Your task to perform on an android device: move an email to a new category in the gmail app Image 0: 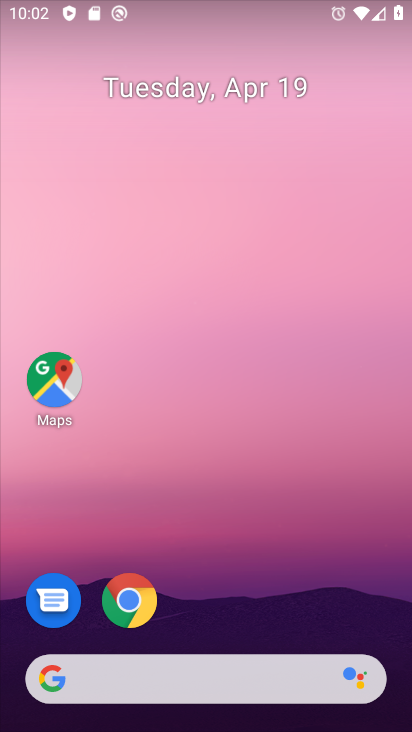
Step 0: drag from (224, 619) to (404, 476)
Your task to perform on an android device: move an email to a new category in the gmail app Image 1: 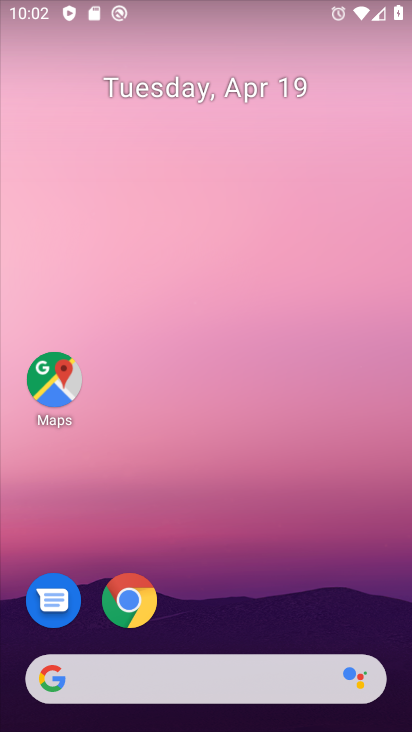
Step 1: drag from (219, 619) to (306, 17)
Your task to perform on an android device: move an email to a new category in the gmail app Image 2: 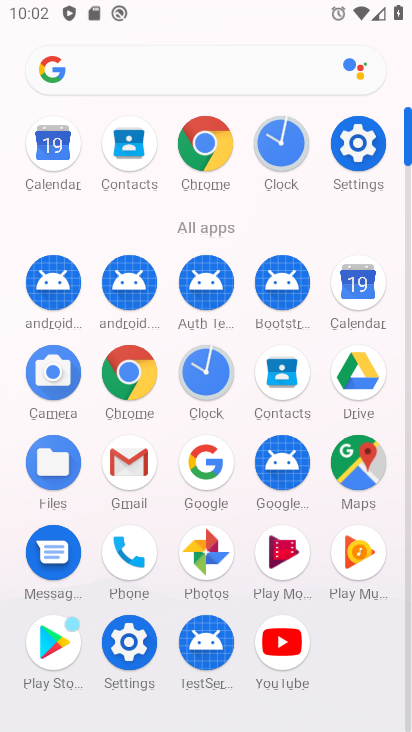
Step 2: click (123, 474)
Your task to perform on an android device: move an email to a new category in the gmail app Image 3: 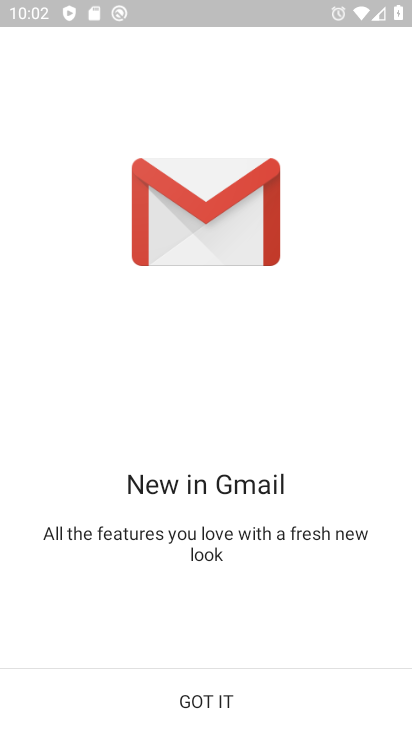
Step 3: click (234, 706)
Your task to perform on an android device: move an email to a new category in the gmail app Image 4: 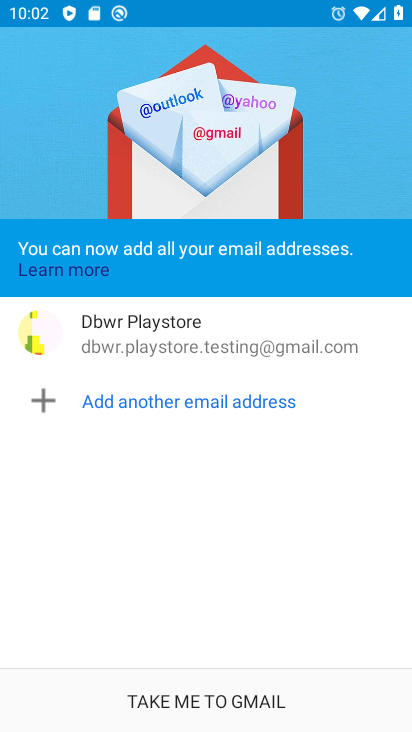
Step 4: click (233, 702)
Your task to perform on an android device: move an email to a new category in the gmail app Image 5: 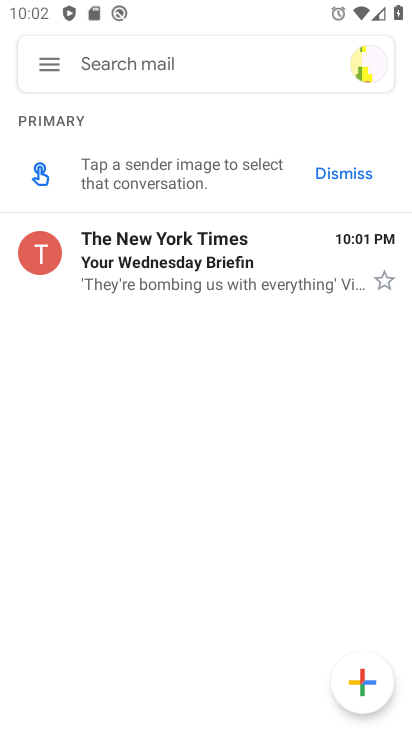
Step 5: click (46, 262)
Your task to perform on an android device: move an email to a new category in the gmail app Image 6: 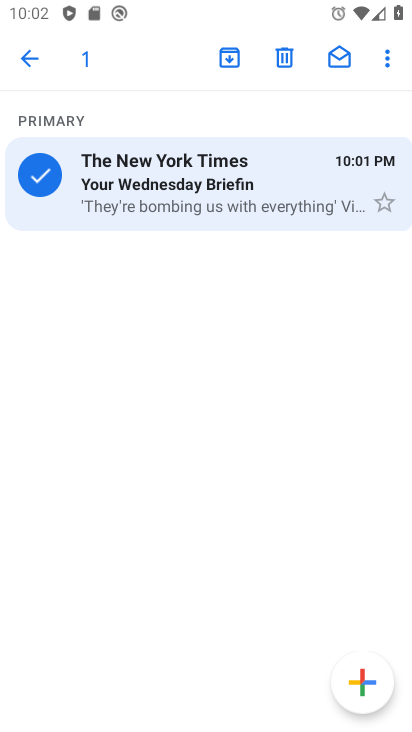
Step 6: click (379, 57)
Your task to perform on an android device: move an email to a new category in the gmail app Image 7: 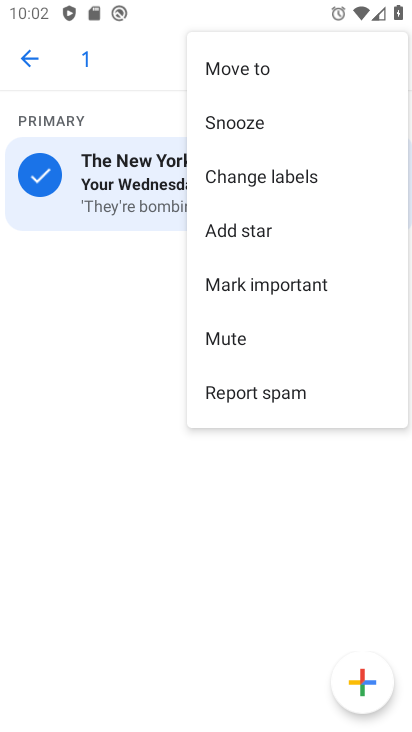
Step 7: click (269, 63)
Your task to perform on an android device: move an email to a new category in the gmail app Image 8: 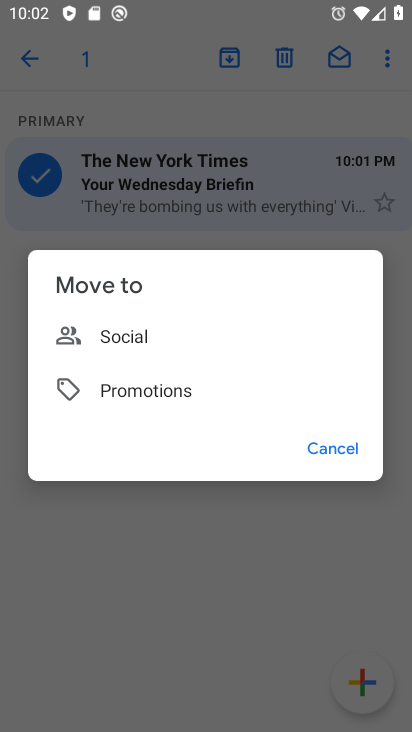
Step 8: click (150, 396)
Your task to perform on an android device: move an email to a new category in the gmail app Image 9: 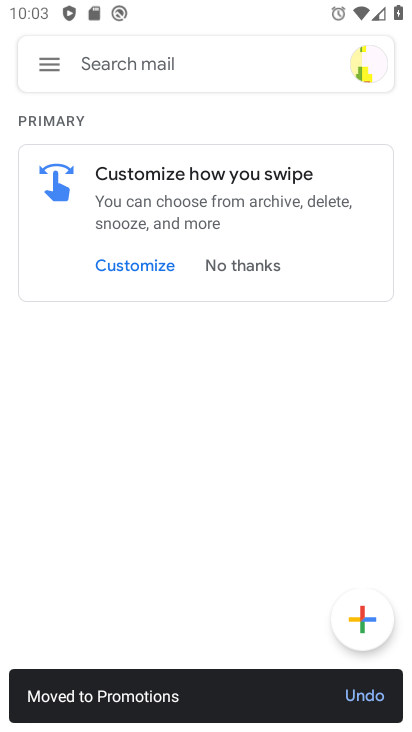
Step 9: task complete